Your task to perform on an android device: Open the calendar app, open the side menu, and click the "Day" option Image 0: 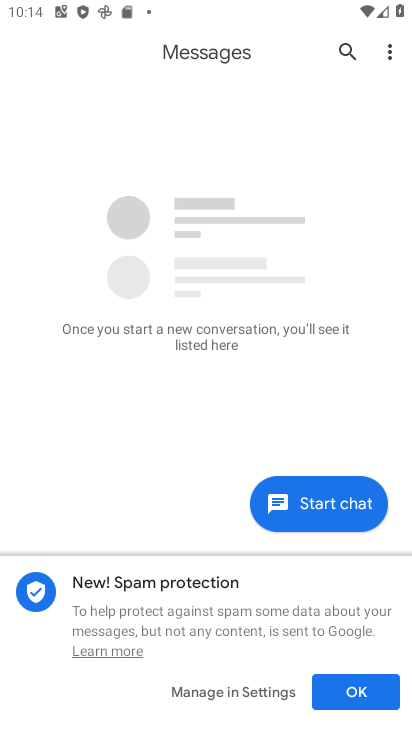
Step 0: press home button
Your task to perform on an android device: Open the calendar app, open the side menu, and click the "Day" option Image 1: 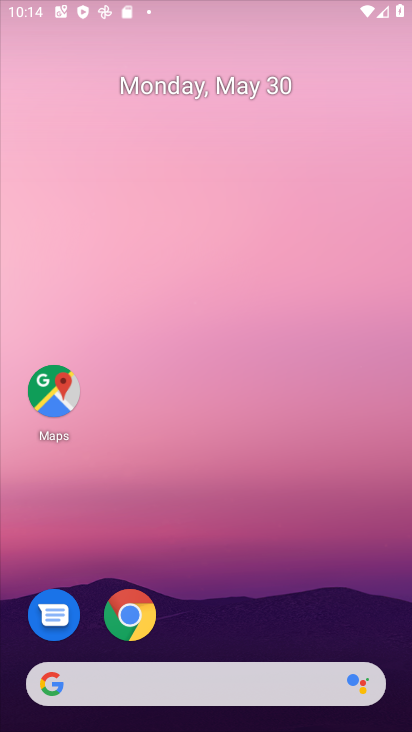
Step 1: drag from (238, 449) to (133, 93)
Your task to perform on an android device: Open the calendar app, open the side menu, and click the "Day" option Image 2: 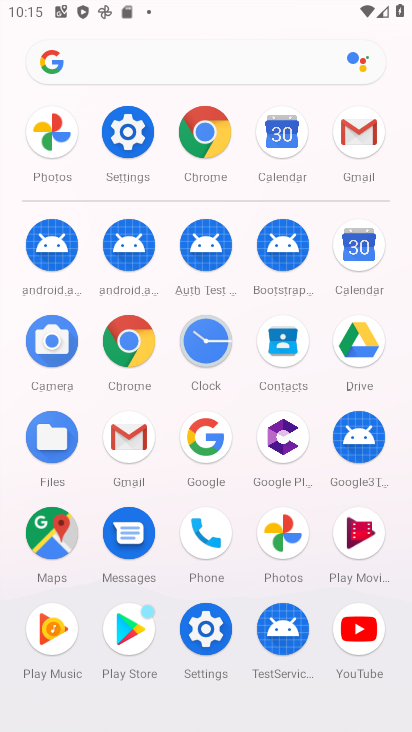
Step 2: click (356, 242)
Your task to perform on an android device: Open the calendar app, open the side menu, and click the "Day" option Image 3: 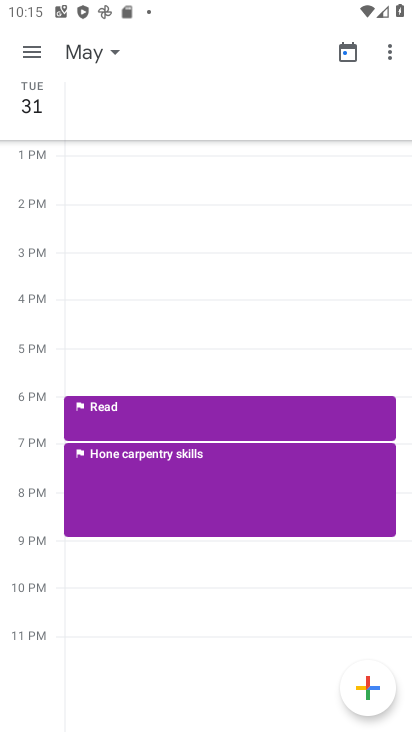
Step 3: click (32, 48)
Your task to perform on an android device: Open the calendar app, open the side menu, and click the "Day" option Image 4: 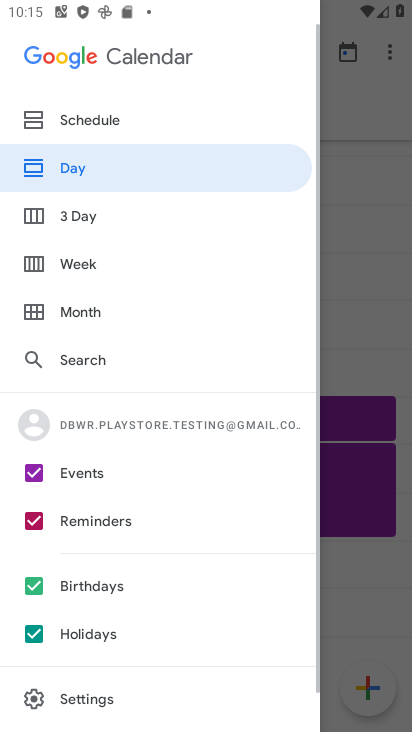
Step 4: click (73, 156)
Your task to perform on an android device: Open the calendar app, open the side menu, and click the "Day" option Image 5: 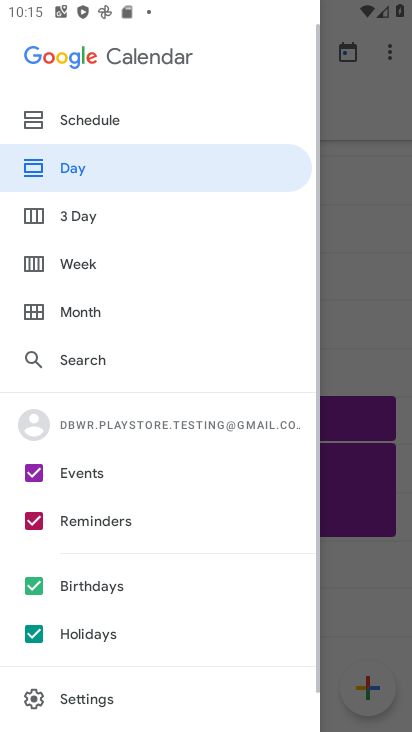
Step 5: task complete